Your task to perform on an android device: change keyboard looks Image 0: 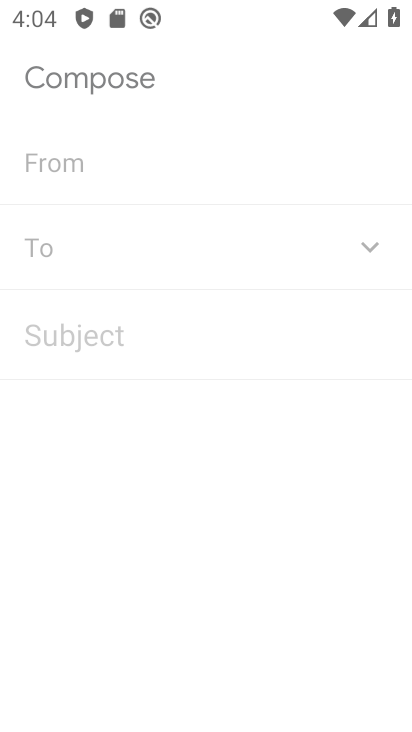
Step 0: drag from (278, 631) to (329, 38)
Your task to perform on an android device: change keyboard looks Image 1: 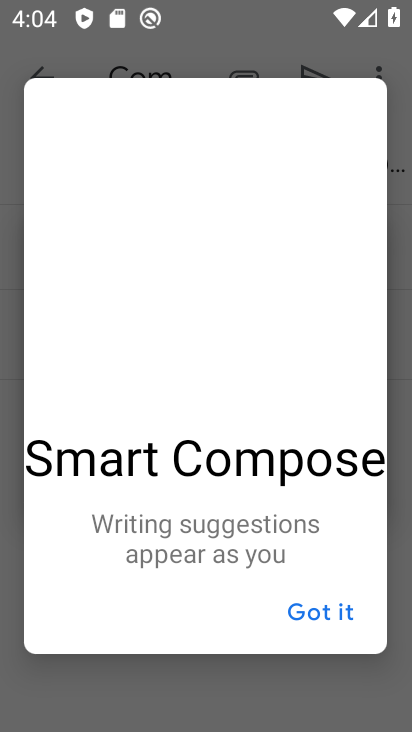
Step 1: press home button
Your task to perform on an android device: change keyboard looks Image 2: 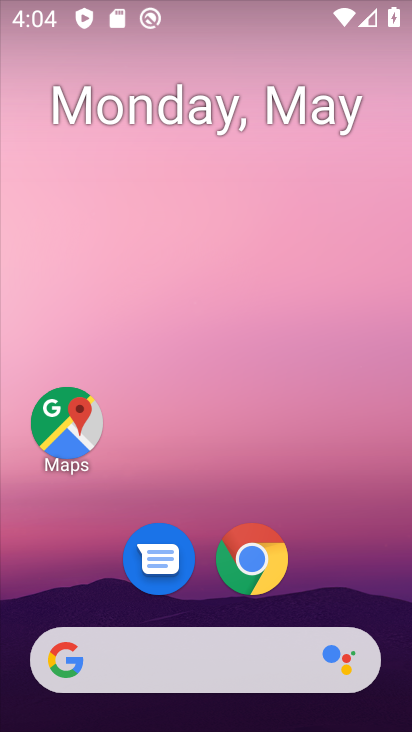
Step 2: drag from (296, 650) to (289, 85)
Your task to perform on an android device: change keyboard looks Image 3: 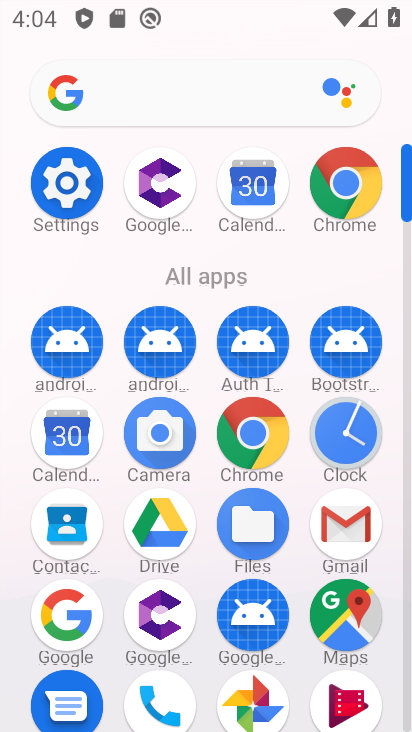
Step 3: click (252, 432)
Your task to perform on an android device: change keyboard looks Image 4: 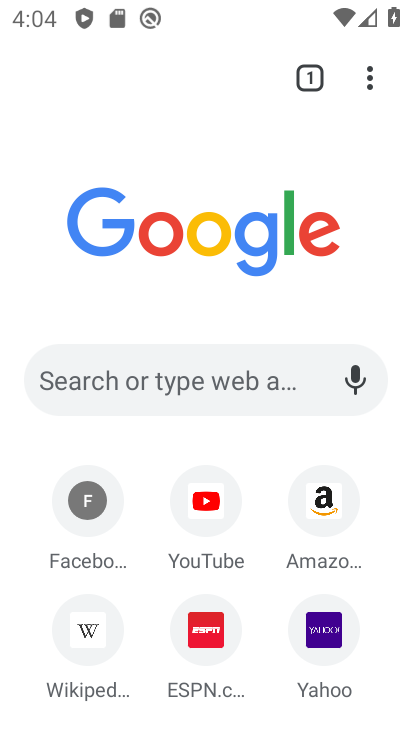
Step 4: drag from (367, 70) to (203, 632)
Your task to perform on an android device: change keyboard looks Image 5: 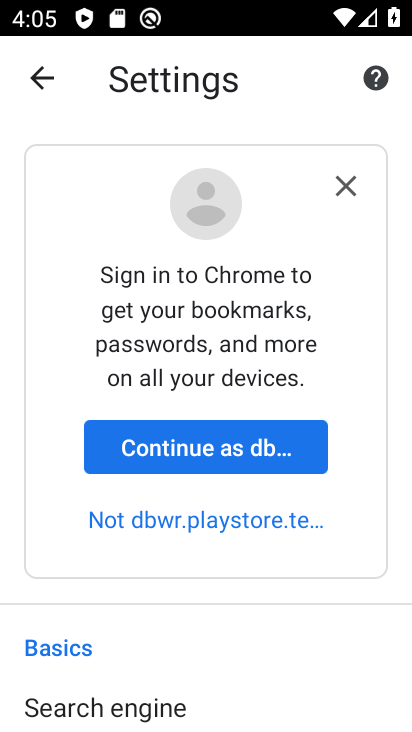
Step 5: press home button
Your task to perform on an android device: change keyboard looks Image 6: 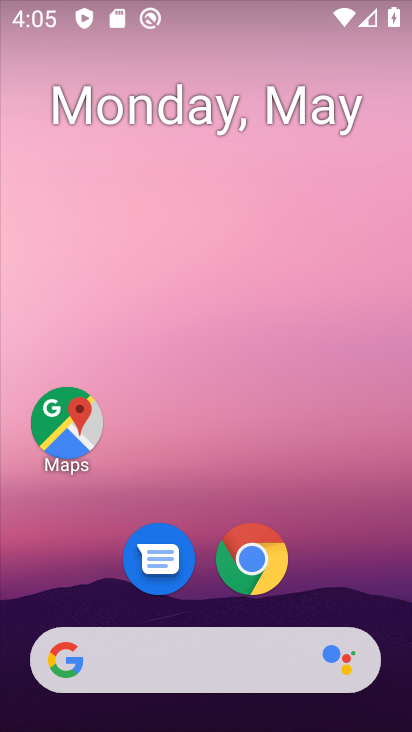
Step 6: drag from (279, 590) to (341, 3)
Your task to perform on an android device: change keyboard looks Image 7: 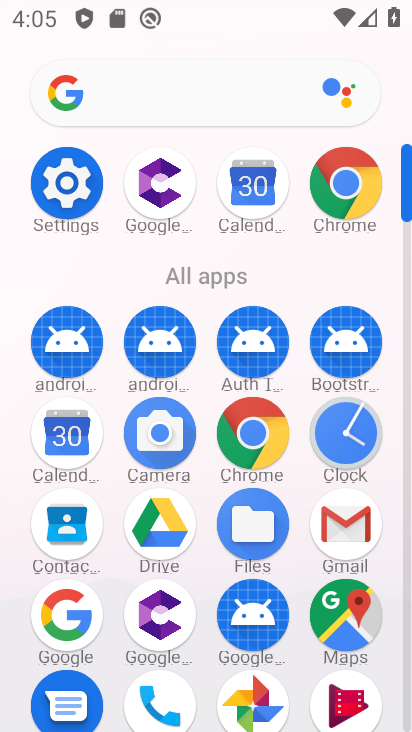
Step 7: click (70, 196)
Your task to perform on an android device: change keyboard looks Image 8: 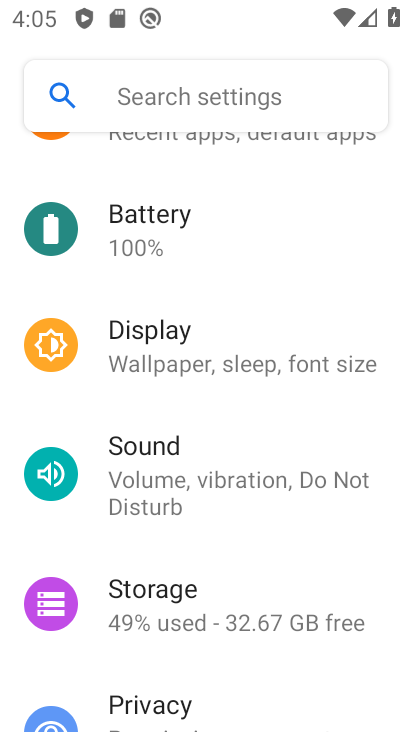
Step 8: drag from (310, 710) to (353, 139)
Your task to perform on an android device: change keyboard looks Image 9: 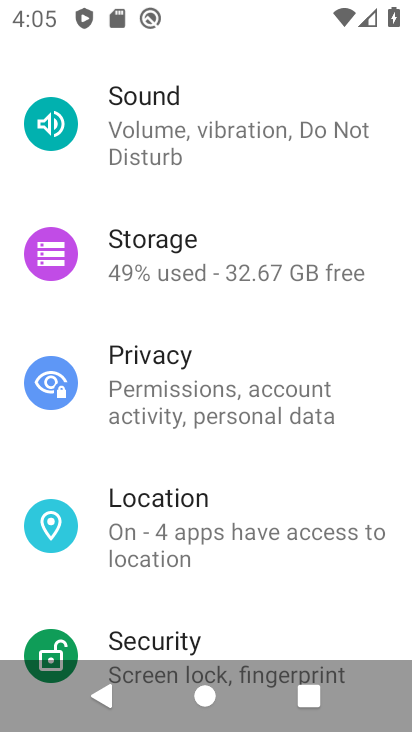
Step 9: drag from (172, 621) to (254, 92)
Your task to perform on an android device: change keyboard looks Image 10: 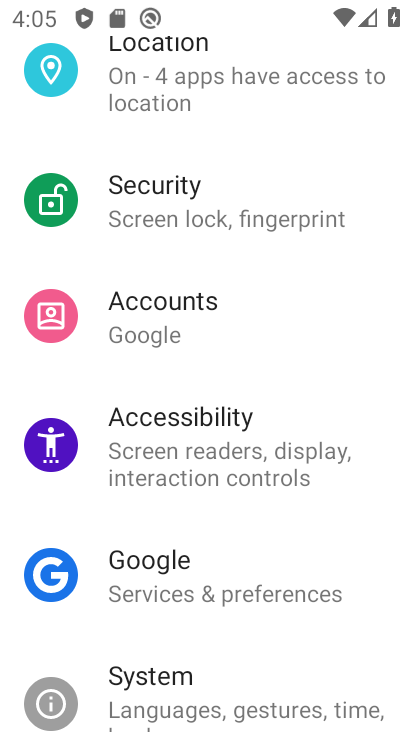
Step 10: click (231, 698)
Your task to perform on an android device: change keyboard looks Image 11: 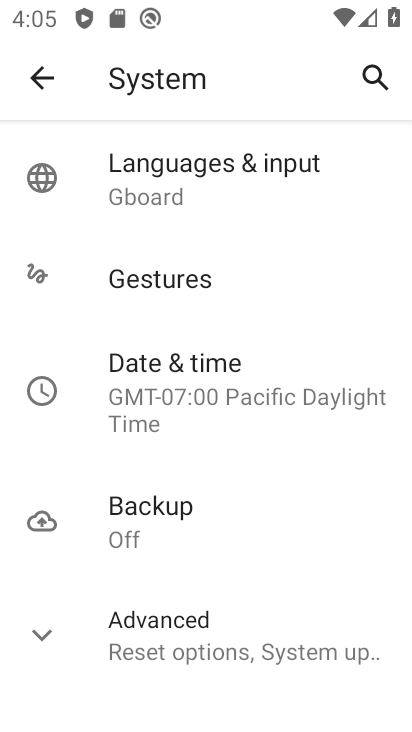
Step 11: click (258, 174)
Your task to perform on an android device: change keyboard looks Image 12: 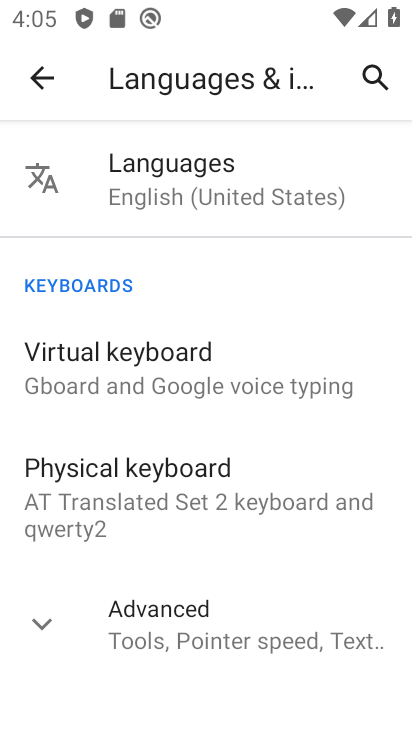
Step 12: click (190, 353)
Your task to perform on an android device: change keyboard looks Image 13: 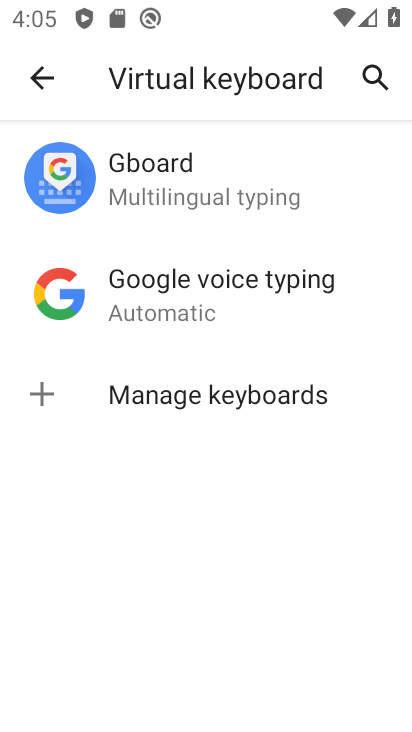
Step 13: click (210, 172)
Your task to perform on an android device: change keyboard looks Image 14: 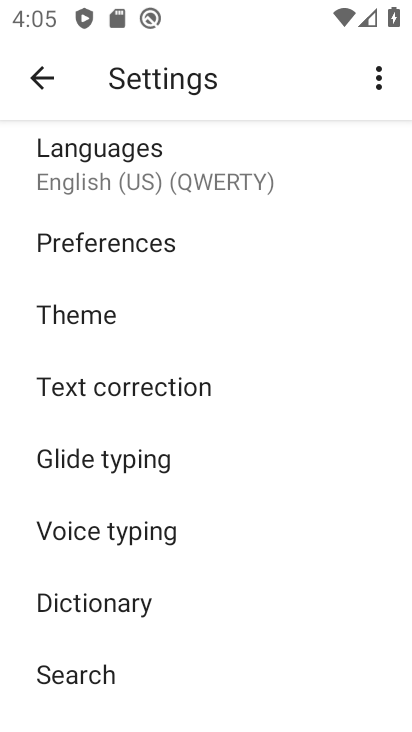
Step 14: click (129, 325)
Your task to perform on an android device: change keyboard looks Image 15: 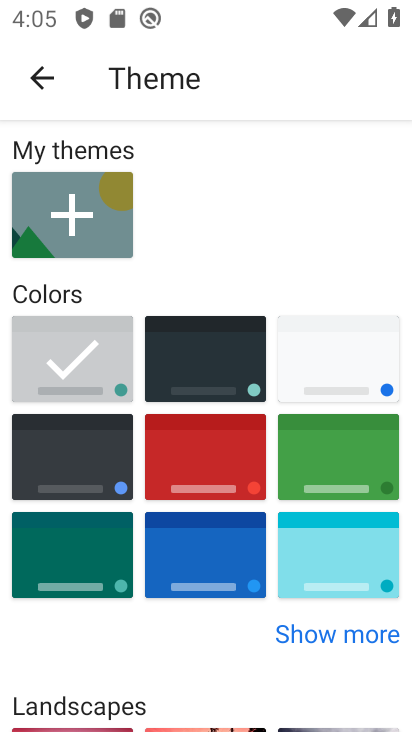
Step 15: click (347, 564)
Your task to perform on an android device: change keyboard looks Image 16: 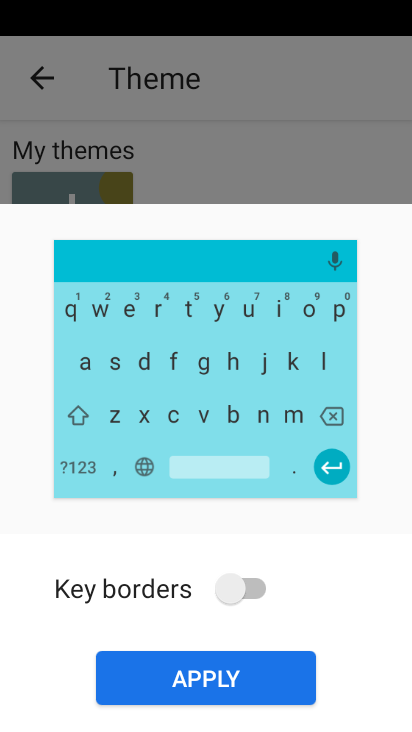
Step 16: click (209, 668)
Your task to perform on an android device: change keyboard looks Image 17: 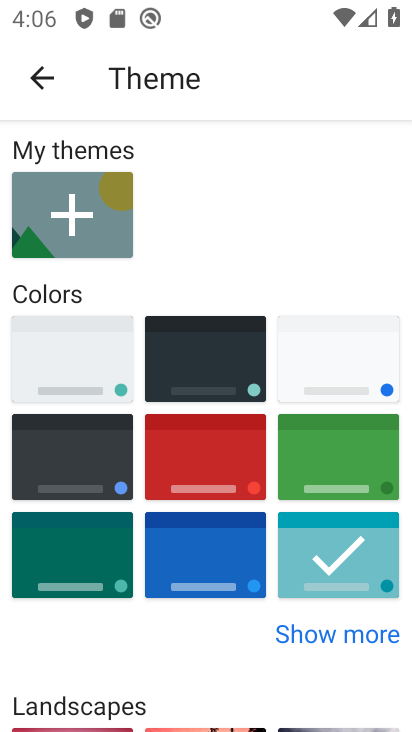
Step 17: click (338, 563)
Your task to perform on an android device: change keyboard looks Image 18: 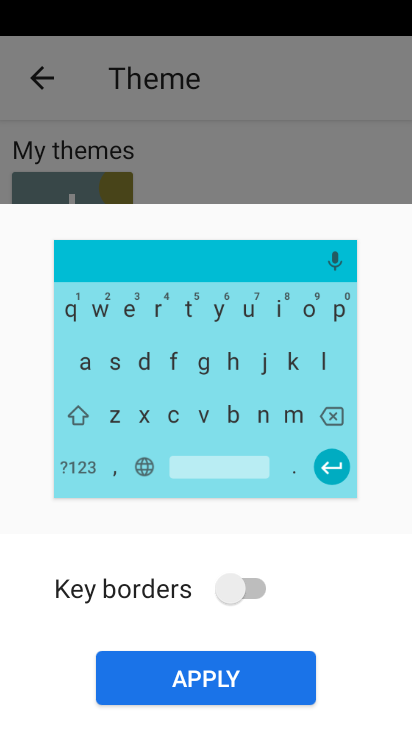
Step 18: task complete